Your task to perform on an android device: turn smart compose on in the gmail app Image 0: 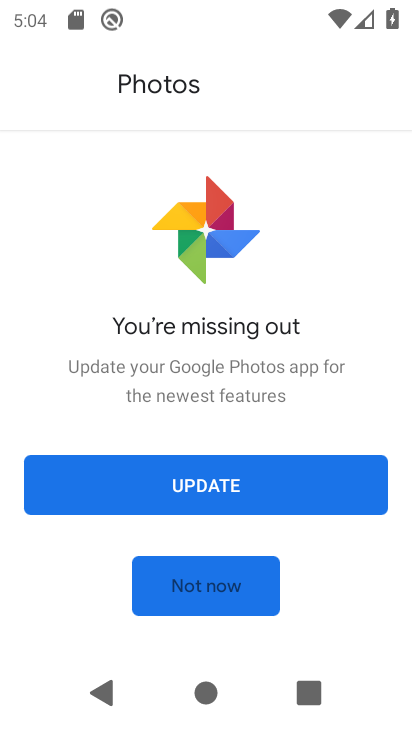
Step 0: press home button
Your task to perform on an android device: turn smart compose on in the gmail app Image 1: 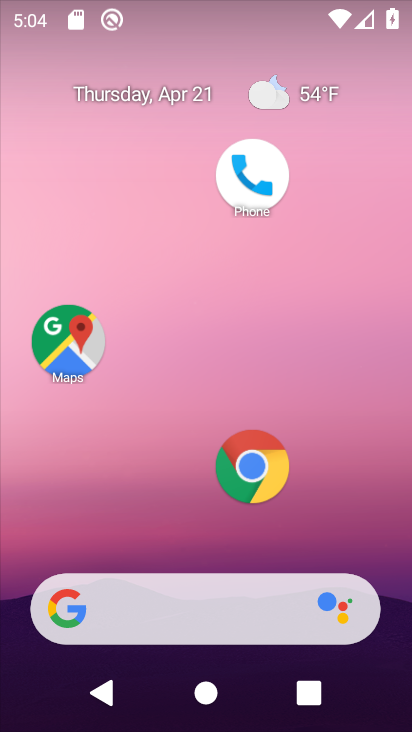
Step 1: drag from (159, 292) to (393, 371)
Your task to perform on an android device: turn smart compose on in the gmail app Image 2: 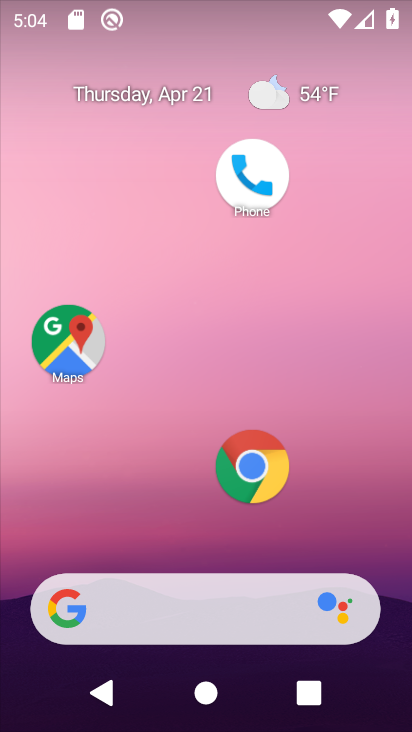
Step 2: drag from (144, 512) to (194, 38)
Your task to perform on an android device: turn smart compose on in the gmail app Image 3: 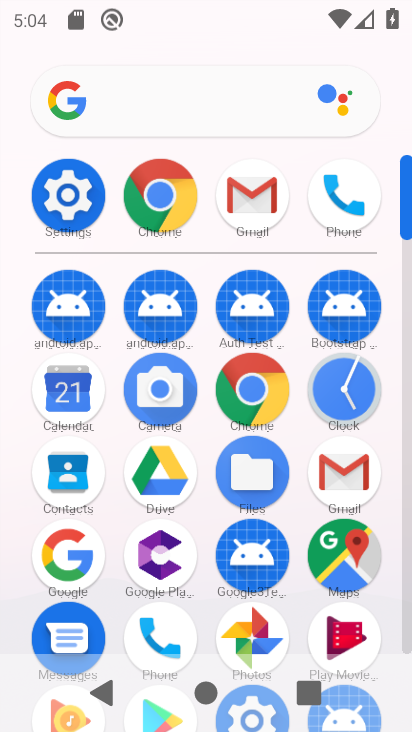
Step 3: click (250, 200)
Your task to perform on an android device: turn smart compose on in the gmail app Image 4: 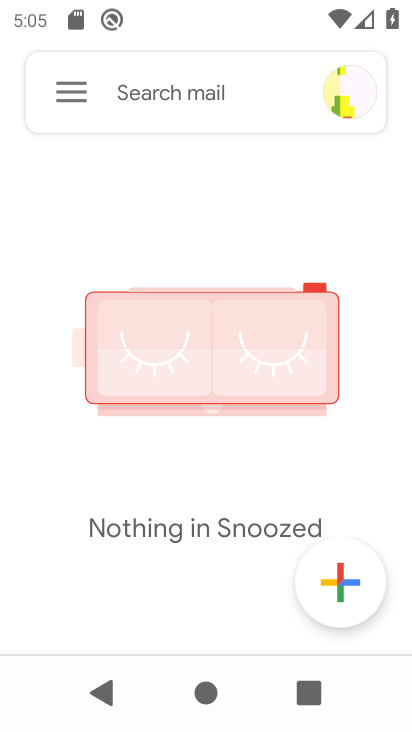
Step 4: click (61, 88)
Your task to perform on an android device: turn smart compose on in the gmail app Image 5: 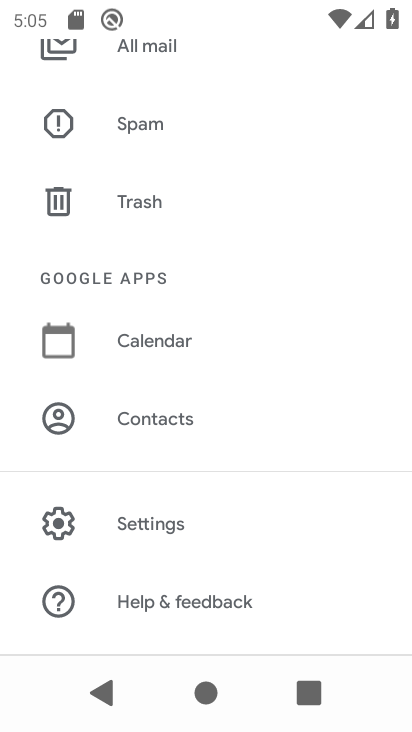
Step 5: click (201, 502)
Your task to perform on an android device: turn smart compose on in the gmail app Image 6: 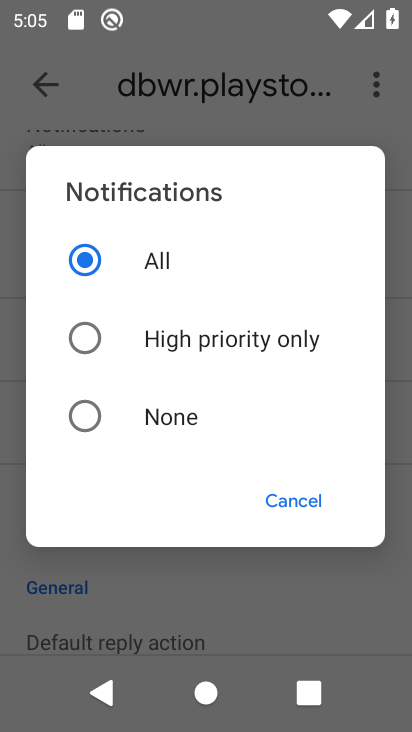
Step 6: click (344, 484)
Your task to perform on an android device: turn smart compose on in the gmail app Image 7: 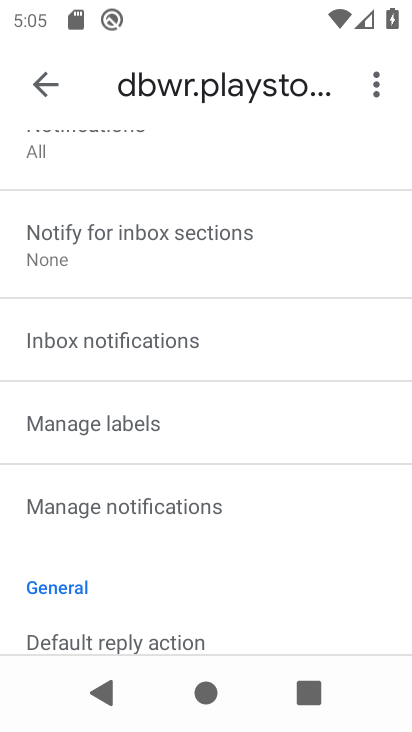
Step 7: task complete